Your task to perform on an android device: add a label to a message in the gmail app Image 0: 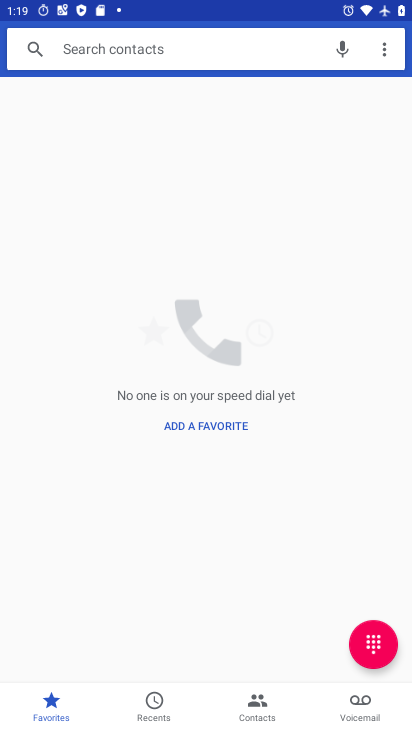
Step 0: press home button
Your task to perform on an android device: add a label to a message in the gmail app Image 1: 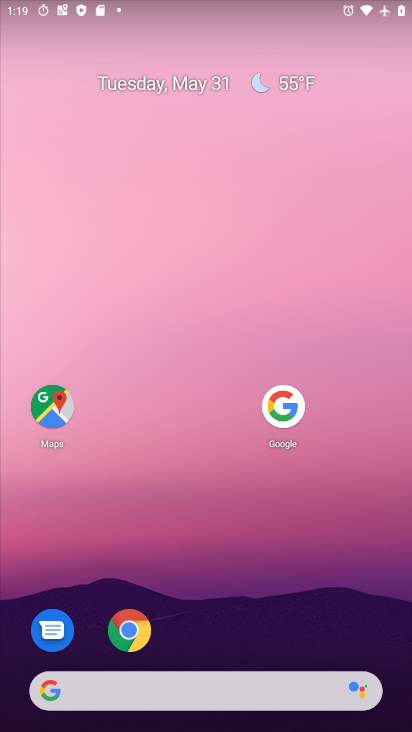
Step 1: drag from (114, 697) to (182, 174)
Your task to perform on an android device: add a label to a message in the gmail app Image 2: 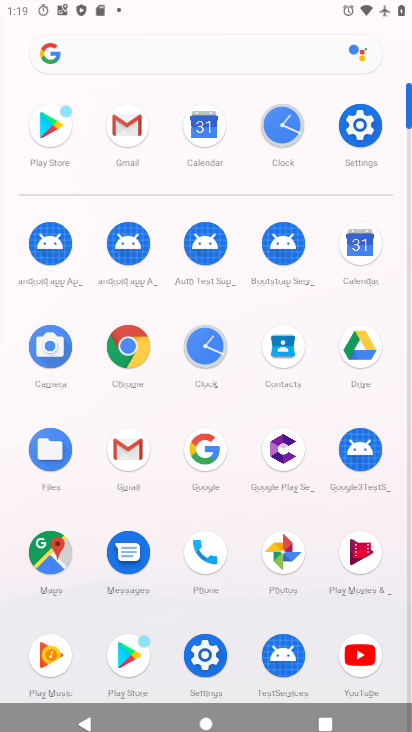
Step 2: click (126, 133)
Your task to perform on an android device: add a label to a message in the gmail app Image 3: 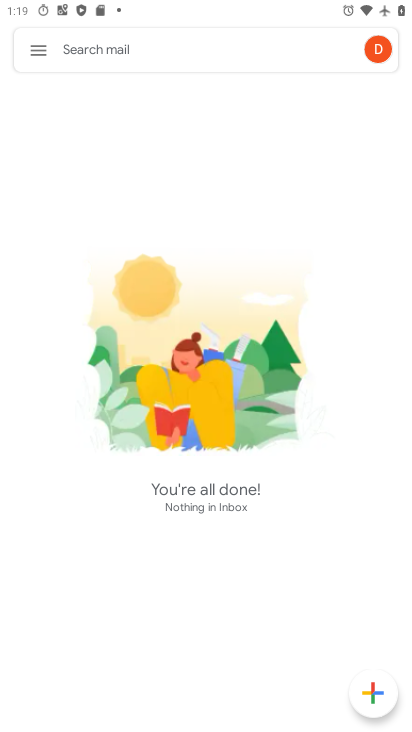
Step 3: click (41, 51)
Your task to perform on an android device: add a label to a message in the gmail app Image 4: 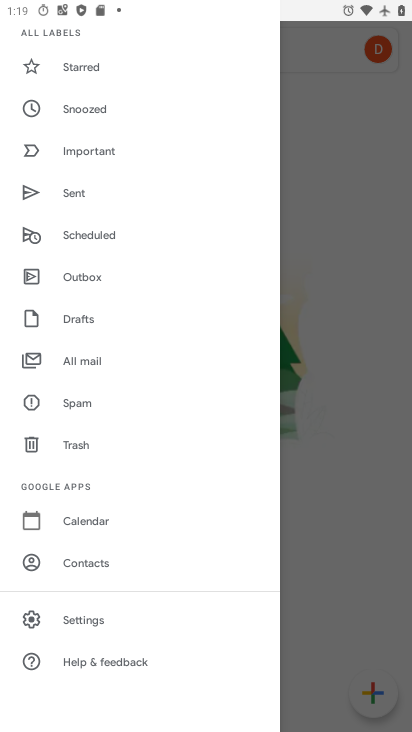
Step 4: click (83, 360)
Your task to perform on an android device: add a label to a message in the gmail app Image 5: 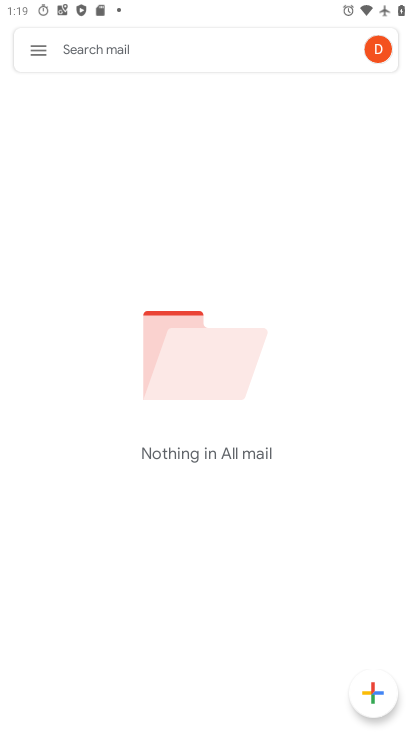
Step 5: task complete